Your task to perform on an android device: star an email in the gmail app Image 0: 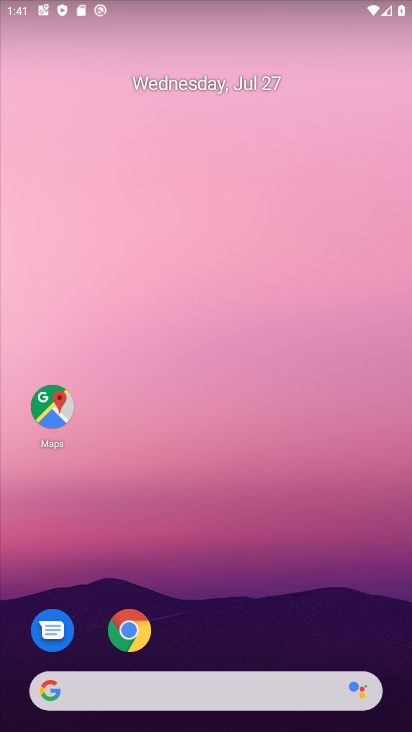
Step 0: drag from (378, 628) to (327, 25)
Your task to perform on an android device: star an email in the gmail app Image 1: 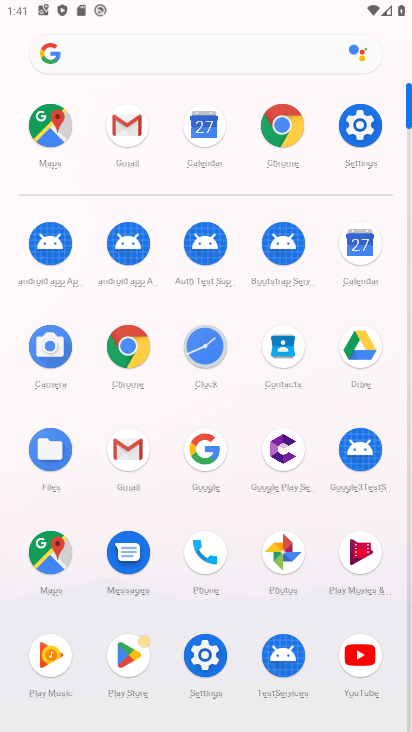
Step 1: click (128, 451)
Your task to perform on an android device: star an email in the gmail app Image 2: 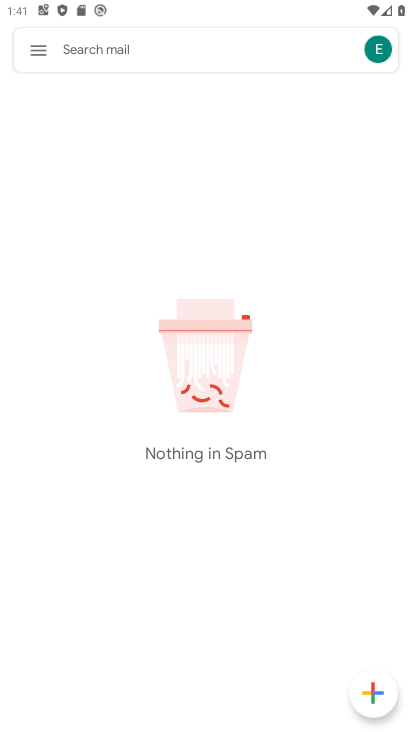
Step 2: click (38, 56)
Your task to perform on an android device: star an email in the gmail app Image 3: 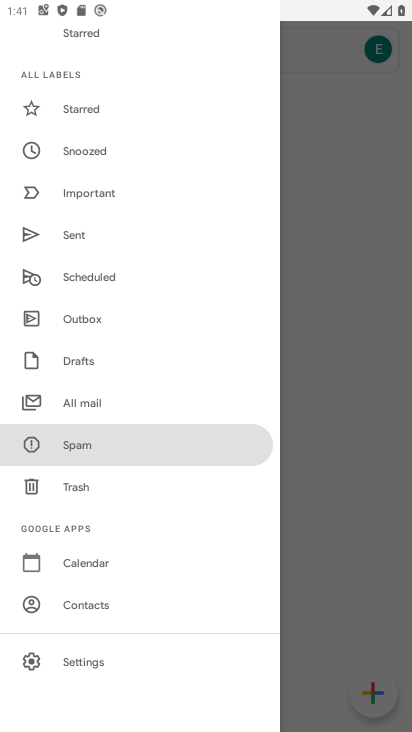
Step 3: click (81, 402)
Your task to perform on an android device: star an email in the gmail app Image 4: 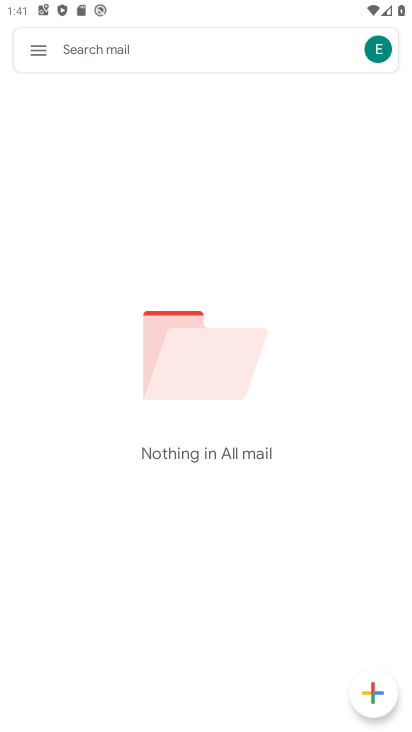
Step 4: task complete